Your task to perform on an android device: toggle improve location accuracy Image 0: 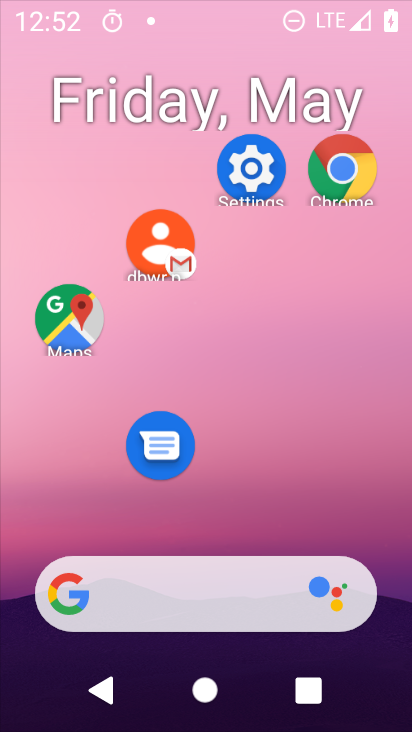
Step 0: drag from (238, 524) to (252, 150)
Your task to perform on an android device: toggle improve location accuracy Image 1: 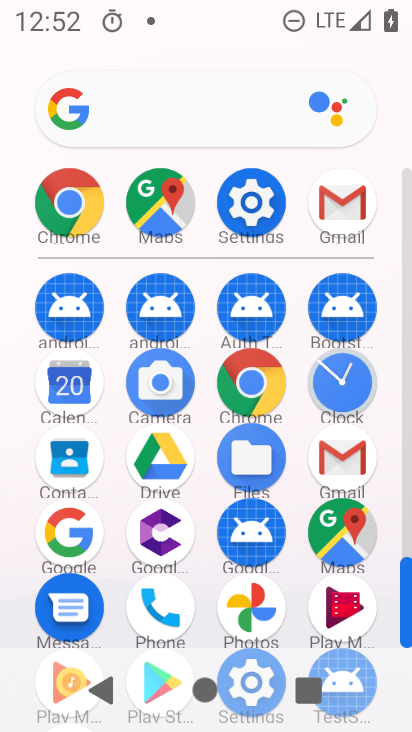
Step 1: click (246, 181)
Your task to perform on an android device: toggle improve location accuracy Image 2: 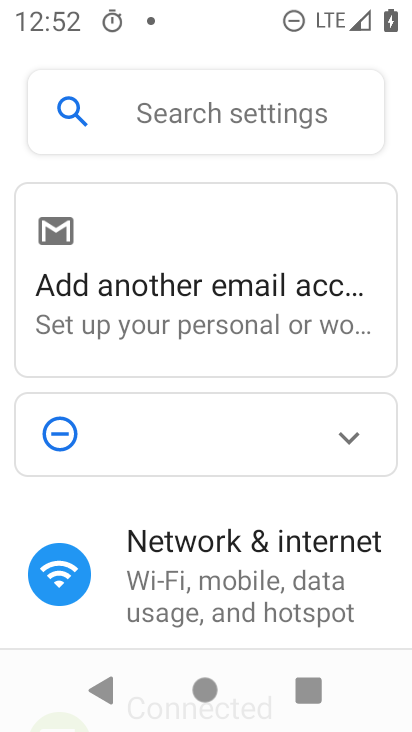
Step 2: drag from (215, 601) to (303, 158)
Your task to perform on an android device: toggle improve location accuracy Image 3: 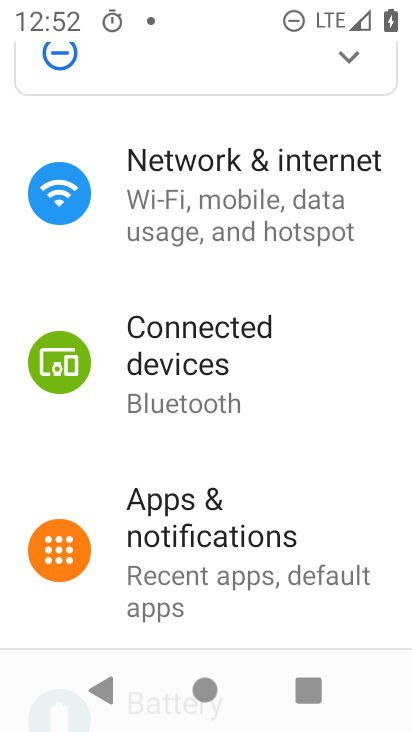
Step 3: drag from (208, 482) to (247, 99)
Your task to perform on an android device: toggle improve location accuracy Image 4: 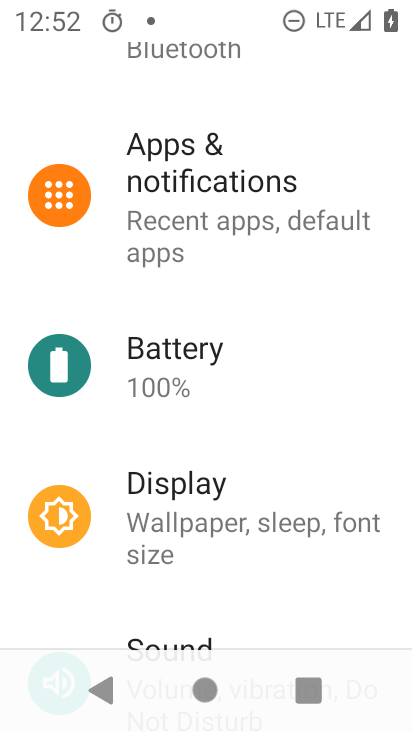
Step 4: drag from (201, 577) to (273, 175)
Your task to perform on an android device: toggle improve location accuracy Image 5: 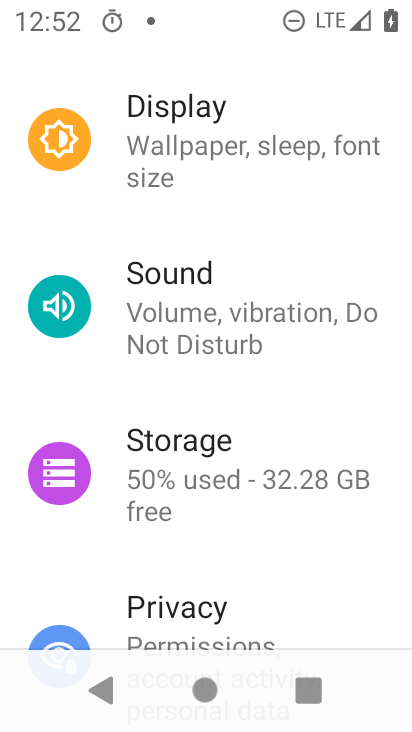
Step 5: drag from (224, 673) to (285, 291)
Your task to perform on an android device: toggle improve location accuracy Image 6: 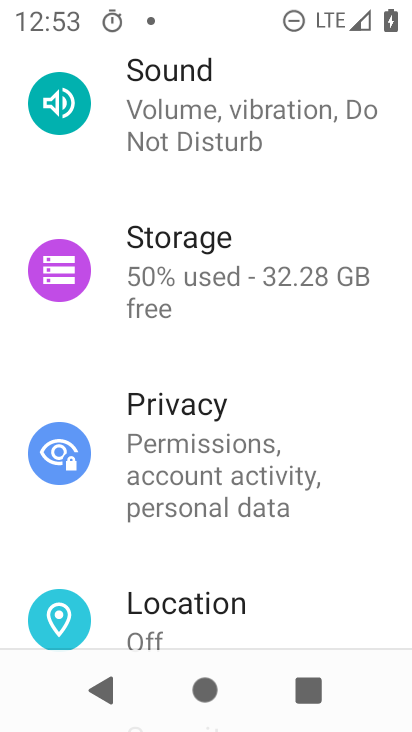
Step 6: drag from (217, 542) to (331, 110)
Your task to perform on an android device: toggle improve location accuracy Image 7: 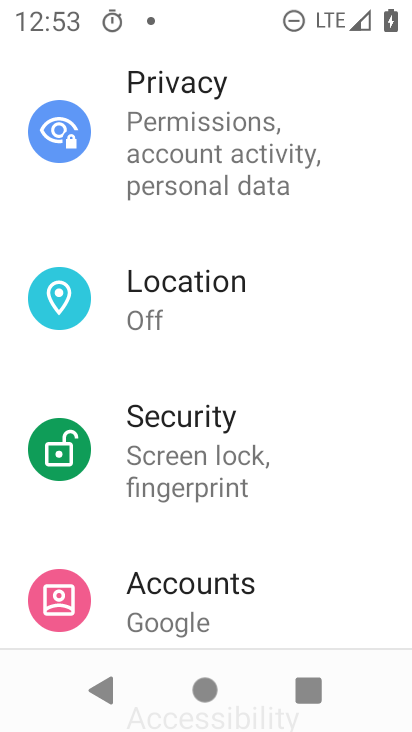
Step 7: drag from (240, 521) to (286, 217)
Your task to perform on an android device: toggle improve location accuracy Image 8: 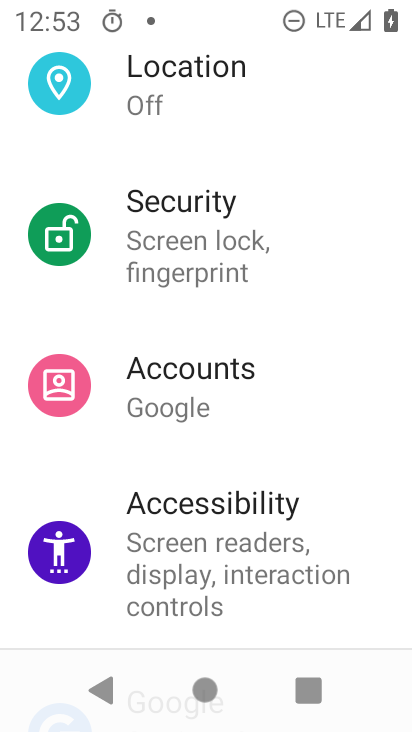
Step 8: click (170, 89)
Your task to perform on an android device: toggle improve location accuracy Image 9: 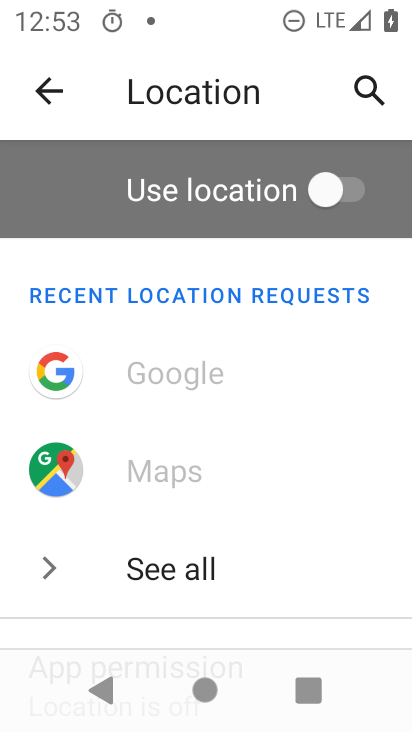
Step 9: drag from (202, 498) to (211, 96)
Your task to perform on an android device: toggle improve location accuracy Image 10: 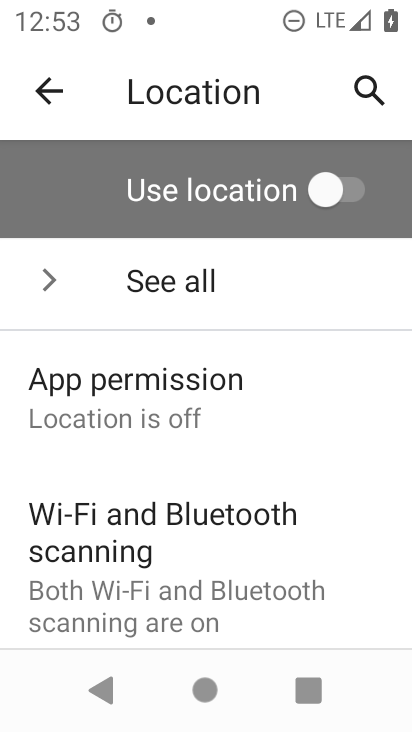
Step 10: drag from (188, 594) to (183, 250)
Your task to perform on an android device: toggle improve location accuracy Image 11: 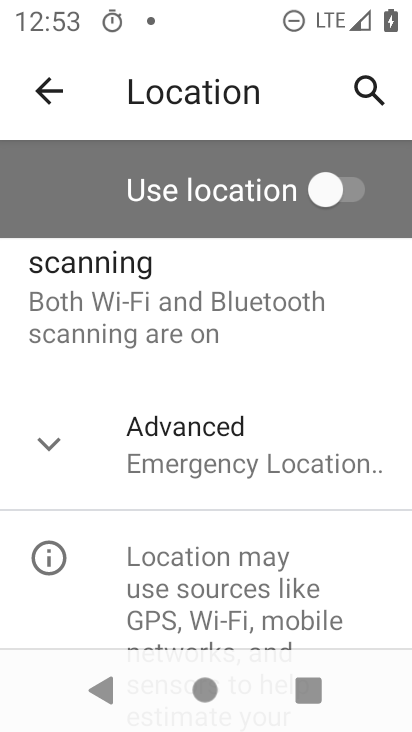
Step 11: click (114, 445)
Your task to perform on an android device: toggle improve location accuracy Image 12: 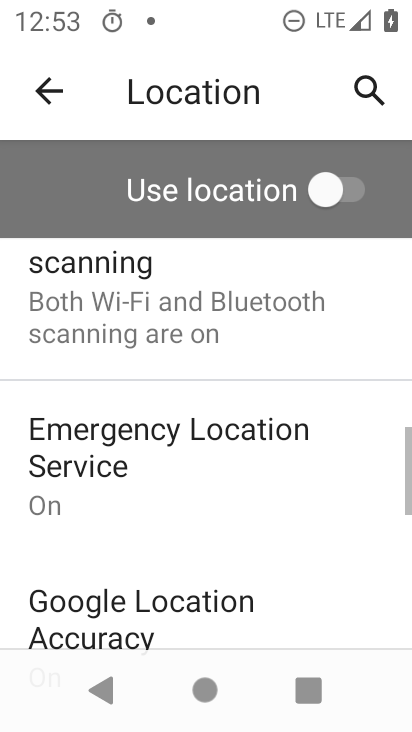
Step 12: drag from (234, 579) to (251, 263)
Your task to perform on an android device: toggle improve location accuracy Image 13: 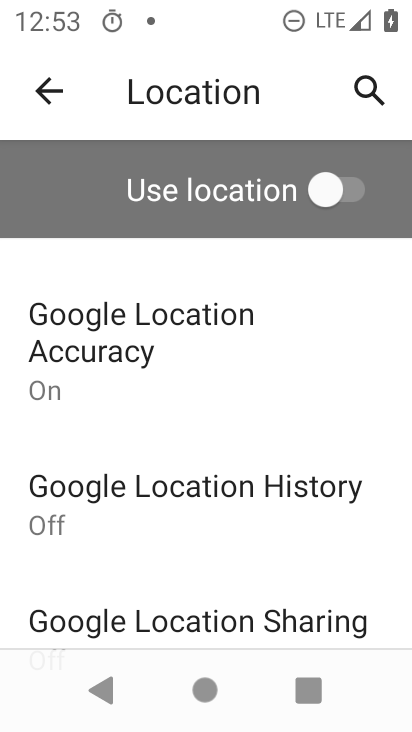
Step 13: click (150, 365)
Your task to perform on an android device: toggle improve location accuracy Image 14: 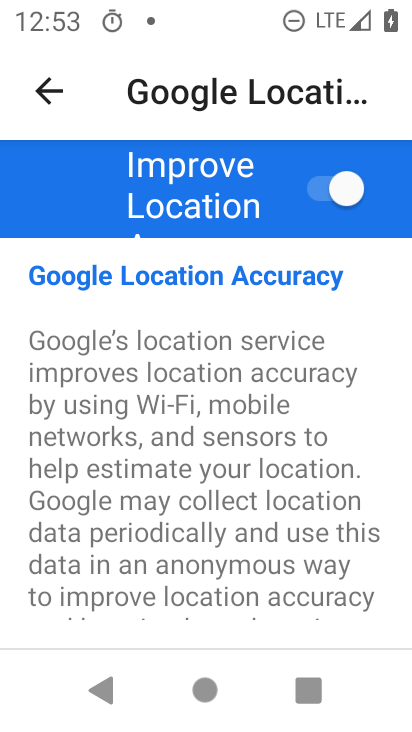
Step 14: drag from (211, 514) to (225, 230)
Your task to perform on an android device: toggle improve location accuracy Image 15: 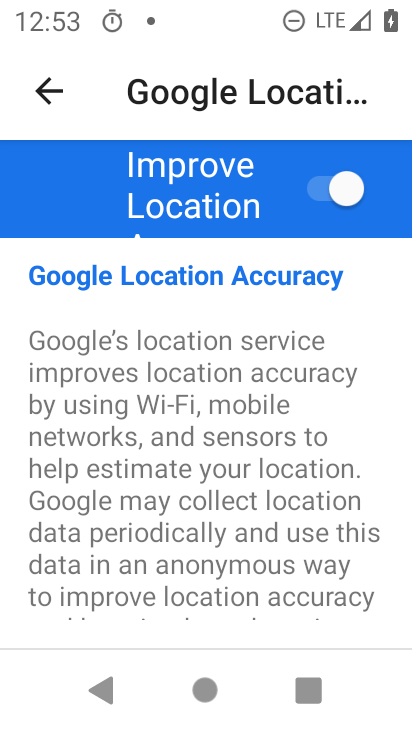
Step 15: drag from (213, 535) to (262, 66)
Your task to perform on an android device: toggle improve location accuracy Image 16: 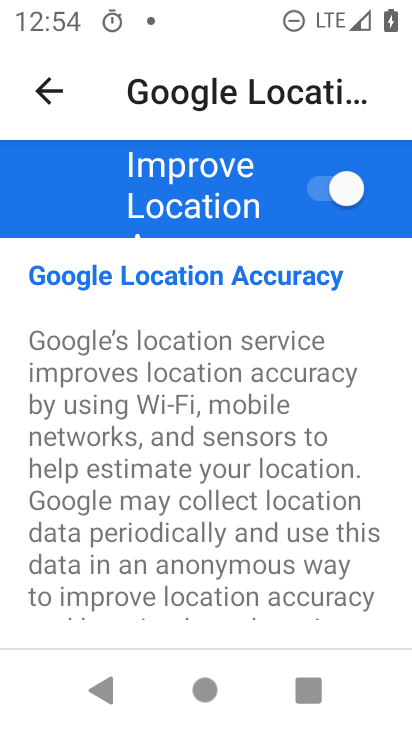
Step 16: drag from (165, 486) to (160, 138)
Your task to perform on an android device: toggle improve location accuracy Image 17: 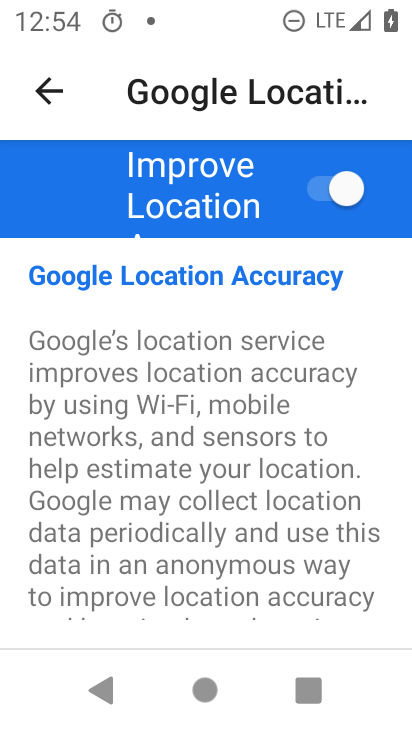
Step 17: drag from (242, 550) to (270, 172)
Your task to perform on an android device: toggle improve location accuracy Image 18: 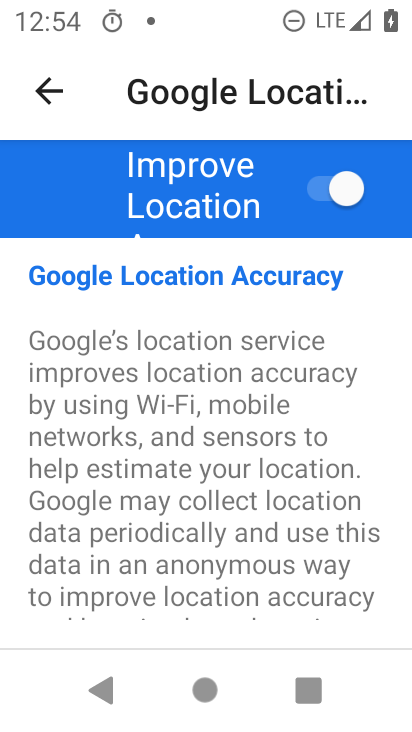
Step 18: click (349, 204)
Your task to perform on an android device: toggle improve location accuracy Image 19: 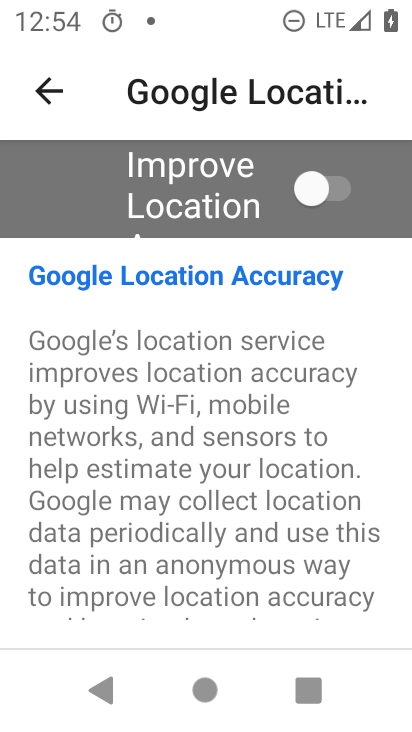
Step 19: task complete